Your task to perform on an android device: What is the news today? Image 0: 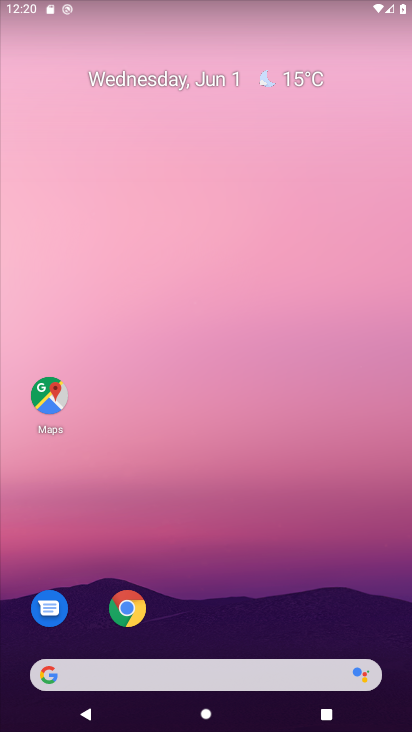
Step 0: click (194, 692)
Your task to perform on an android device: What is the news today? Image 1: 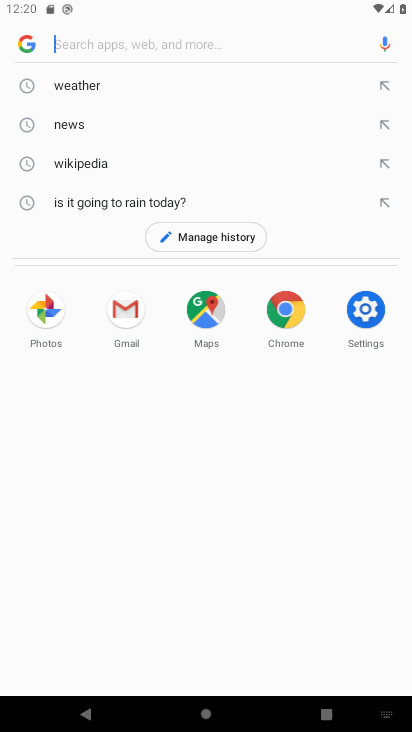
Step 1: type "news today ?"
Your task to perform on an android device: What is the news today? Image 2: 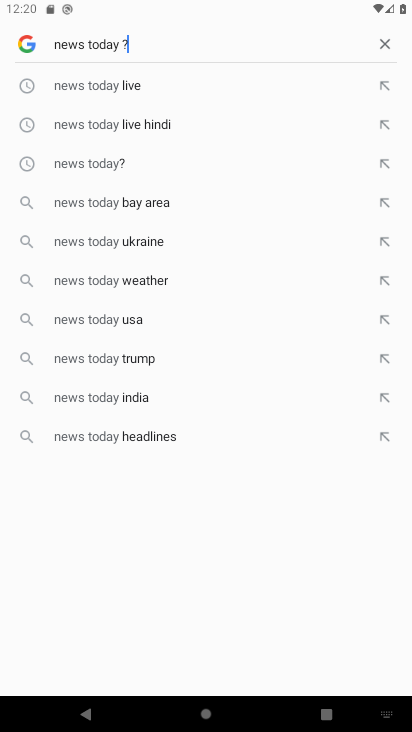
Step 2: click (108, 163)
Your task to perform on an android device: What is the news today? Image 3: 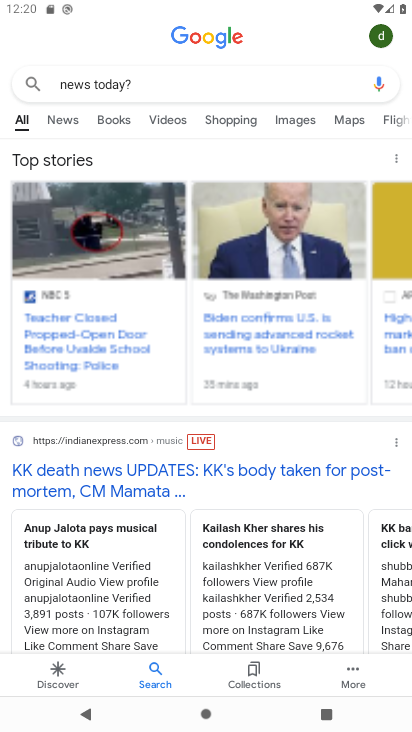
Step 3: task complete